Your task to perform on an android device: Open notification settings Image 0: 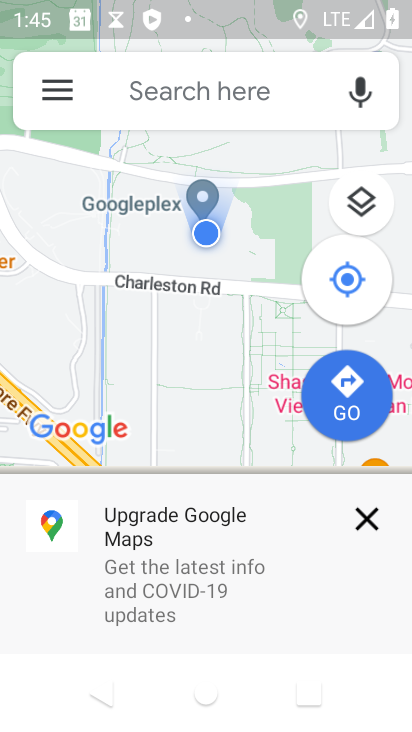
Step 0: press back button
Your task to perform on an android device: Open notification settings Image 1: 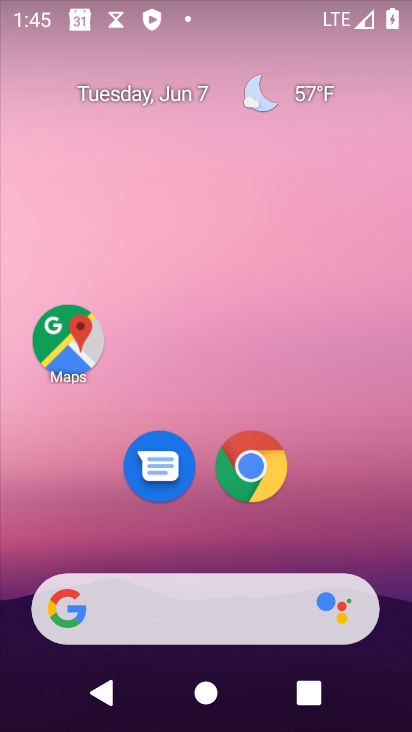
Step 1: drag from (210, 553) to (272, 62)
Your task to perform on an android device: Open notification settings Image 2: 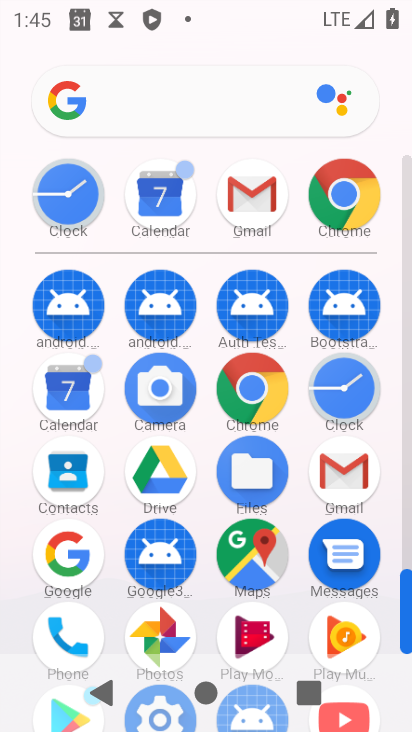
Step 2: drag from (172, 643) to (244, 194)
Your task to perform on an android device: Open notification settings Image 3: 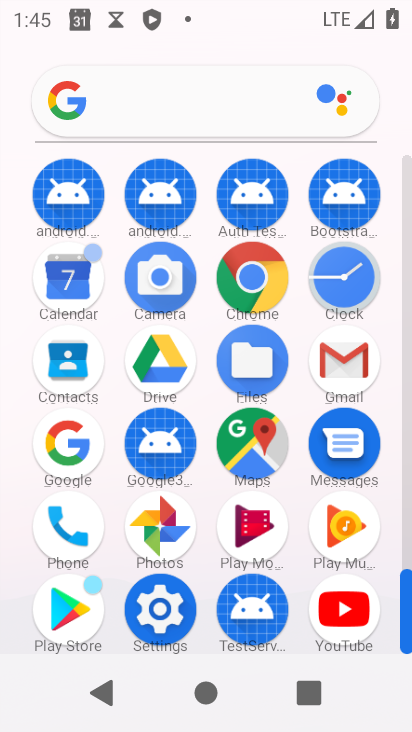
Step 3: click (154, 583)
Your task to perform on an android device: Open notification settings Image 4: 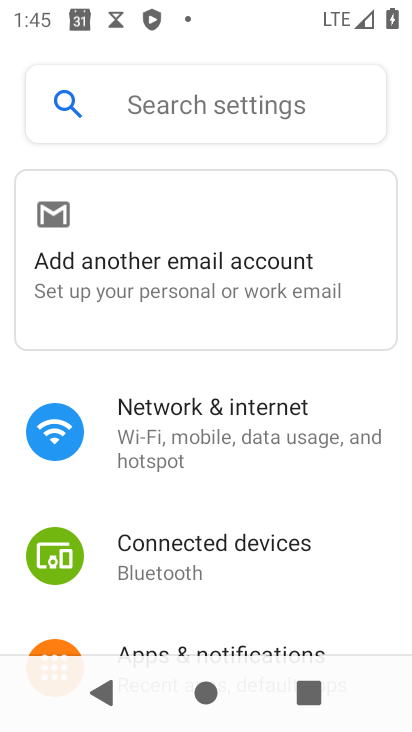
Step 4: drag from (224, 570) to (261, 308)
Your task to perform on an android device: Open notification settings Image 5: 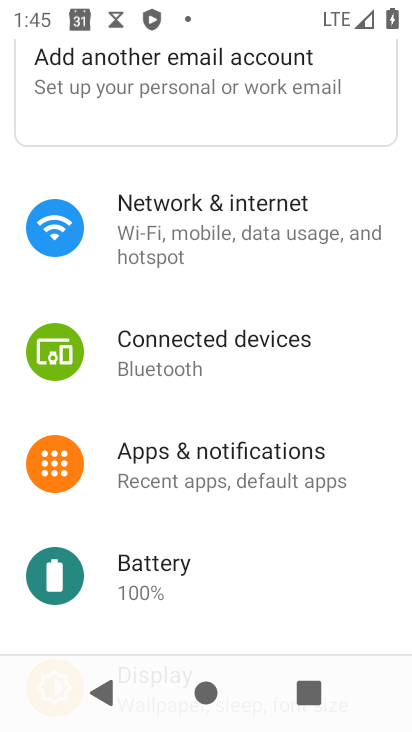
Step 5: click (235, 458)
Your task to perform on an android device: Open notification settings Image 6: 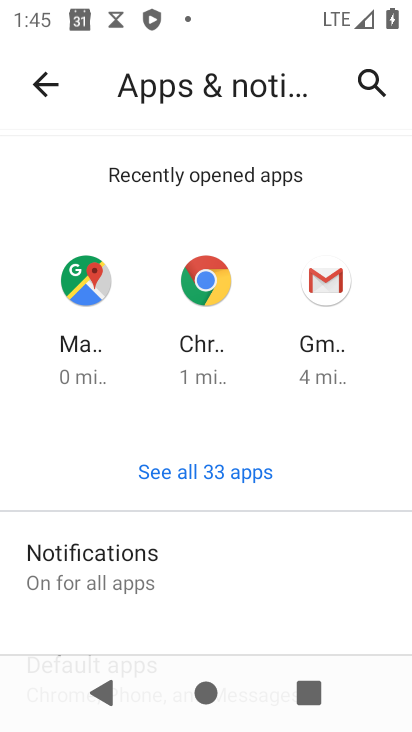
Step 6: task complete